Your task to perform on an android device: When is my next meeting? Image 0: 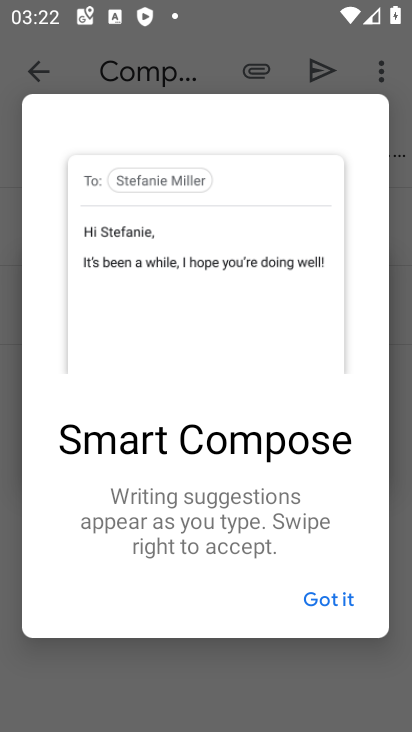
Step 0: press home button
Your task to perform on an android device: When is my next meeting? Image 1: 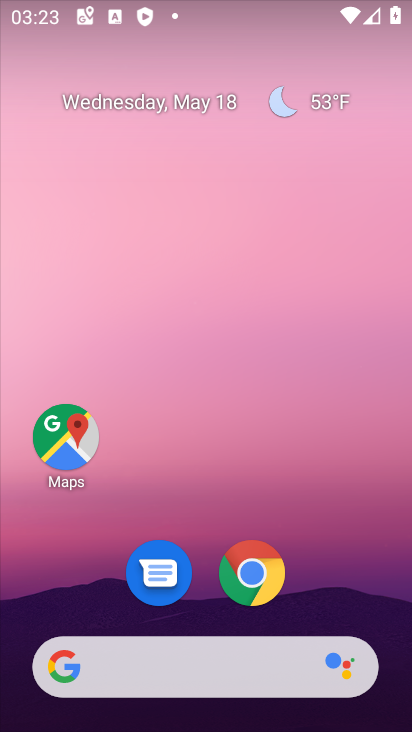
Step 1: drag from (186, 611) to (239, 242)
Your task to perform on an android device: When is my next meeting? Image 2: 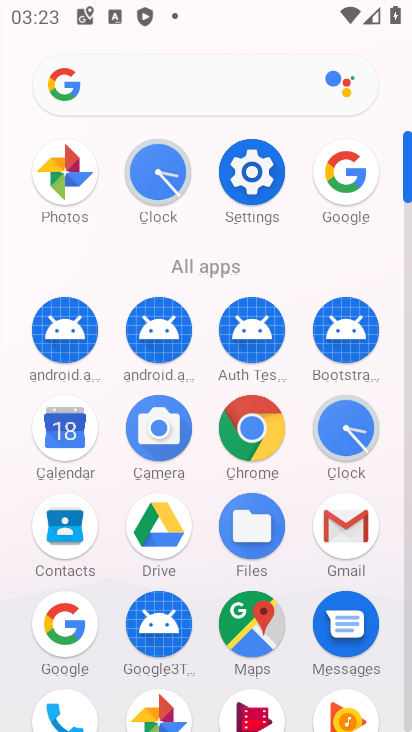
Step 2: click (74, 424)
Your task to perform on an android device: When is my next meeting? Image 3: 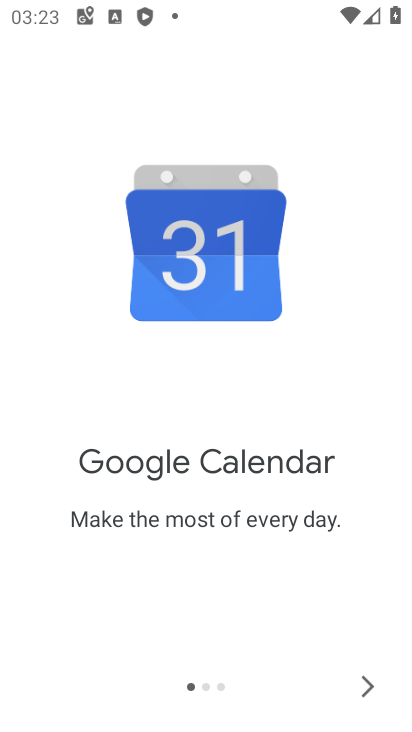
Step 3: click (367, 681)
Your task to perform on an android device: When is my next meeting? Image 4: 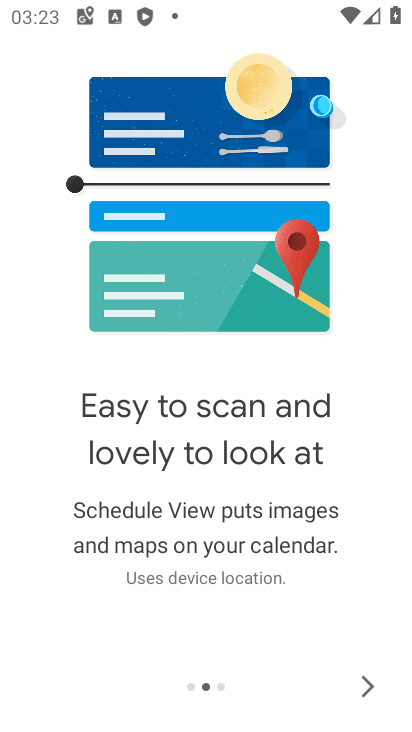
Step 4: click (369, 681)
Your task to perform on an android device: When is my next meeting? Image 5: 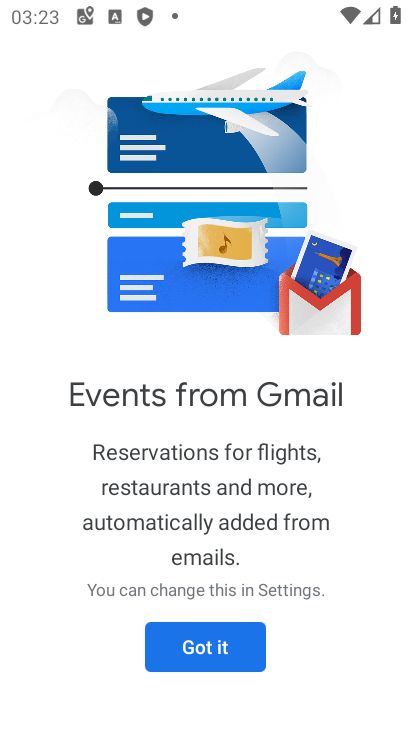
Step 5: click (166, 636)
Your task to perform on an android device: When is my next meeting? Image 6: 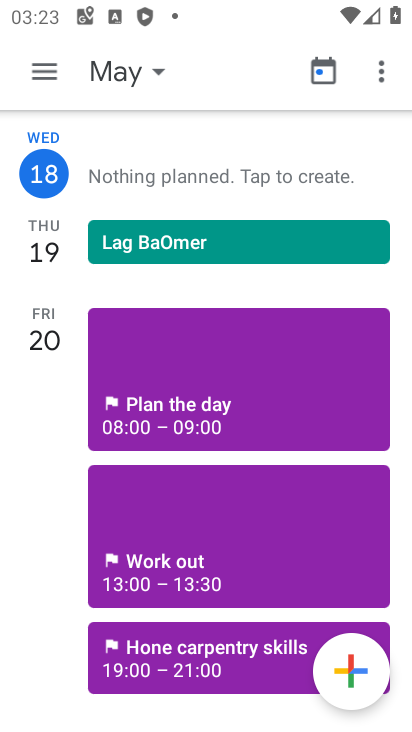
Step 6: task complete